Your task to perform on an android device: uninstall "Contacts" Image 0: 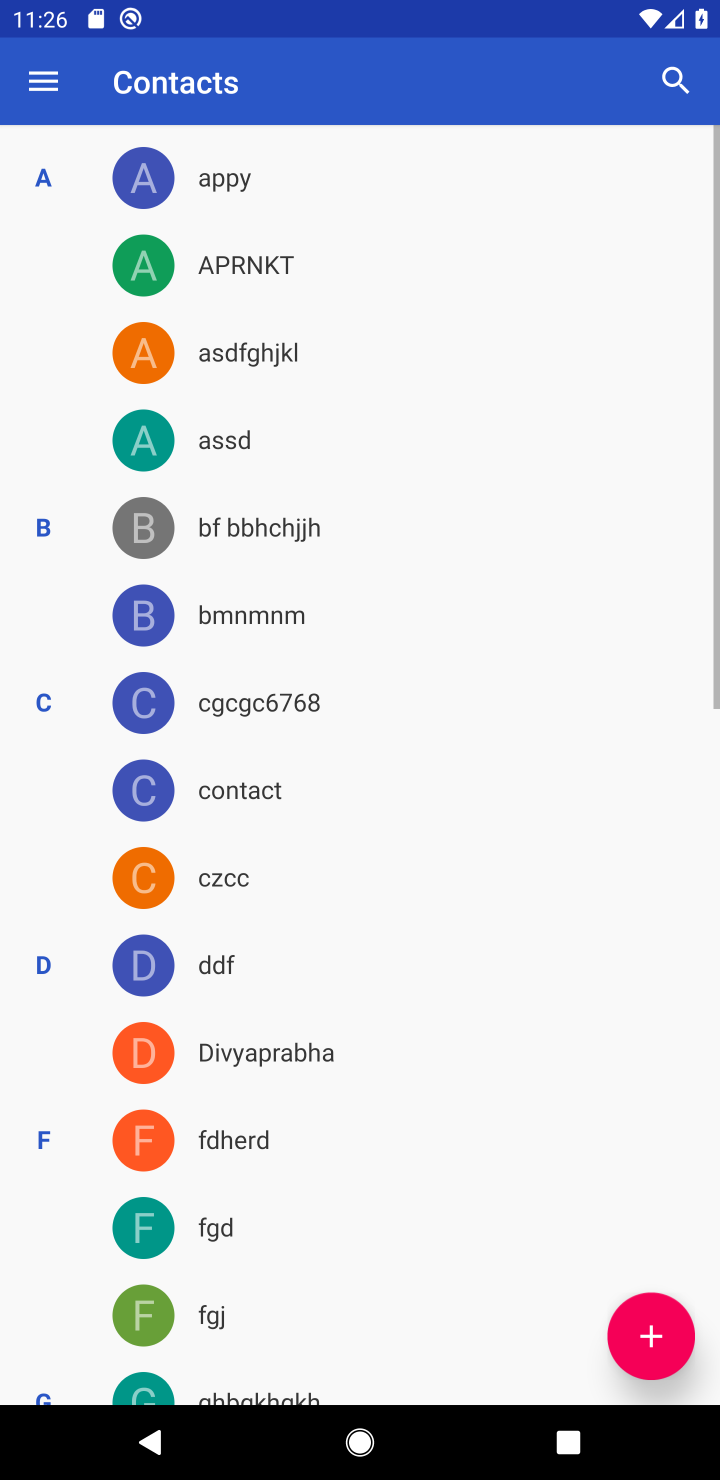
Step 0: press home button
Your task to perform on an android device: uninstall "Contacts" Image 1: 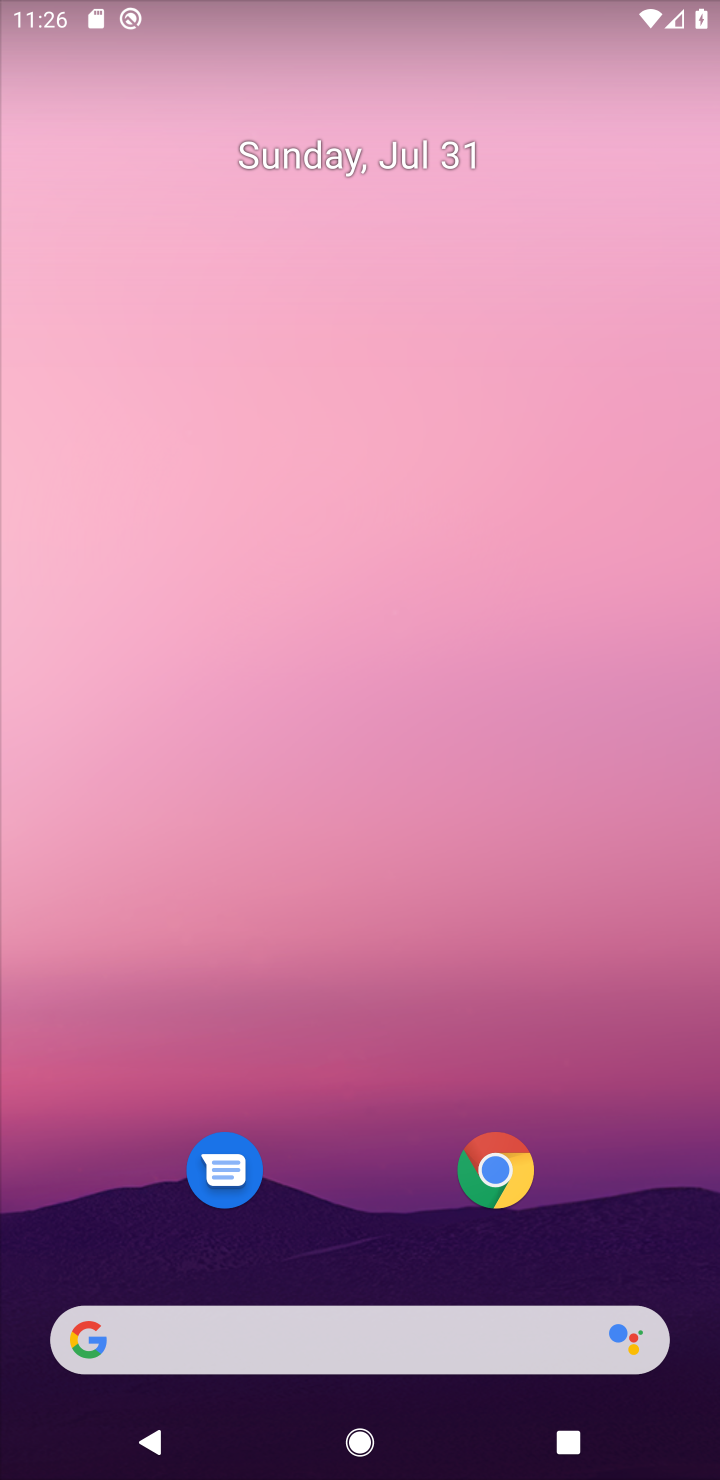
Step 1: drag from (666, 1214) to (393, 84)
Your task to perform on an android device: uninstall "Contacts" Image 2: 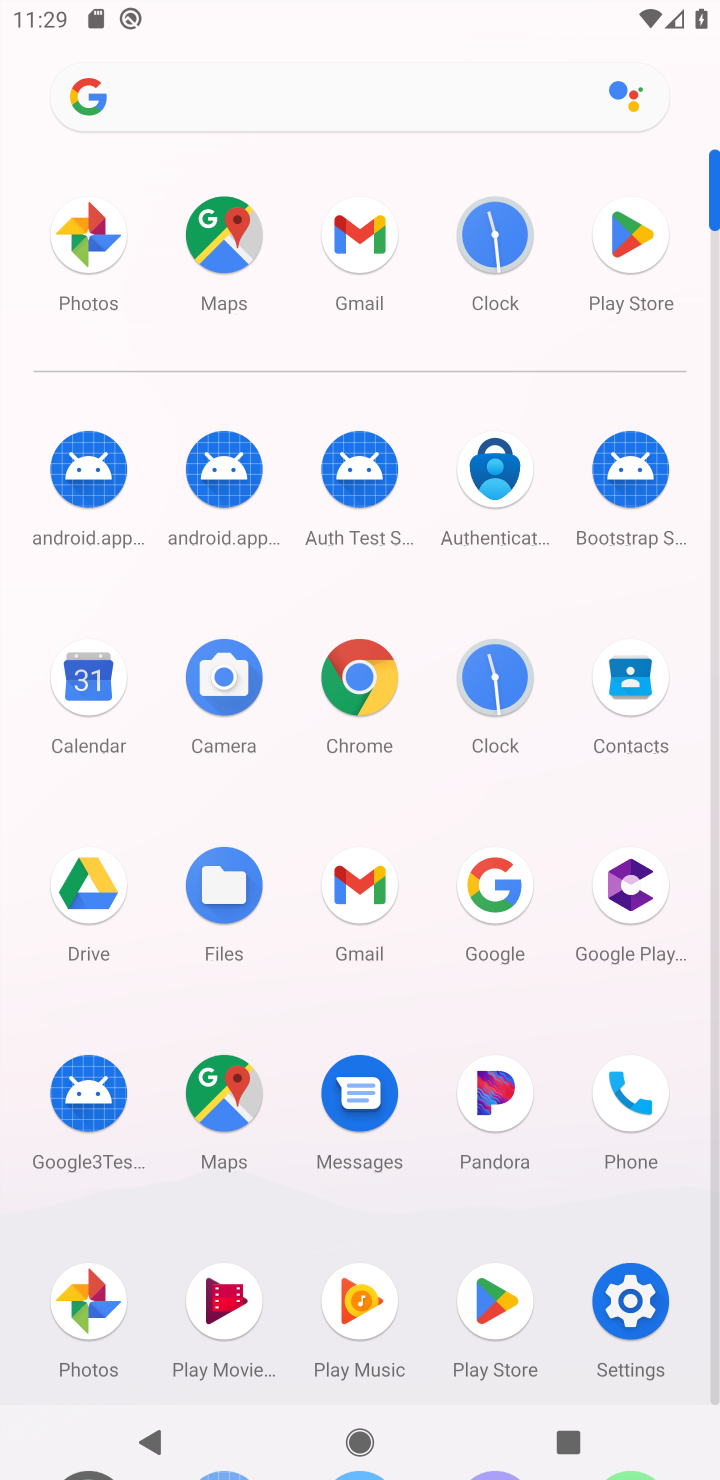
Step 2: click (616, 232)
Your task to perform on an android device: uninstall "Contacts" Image 3: 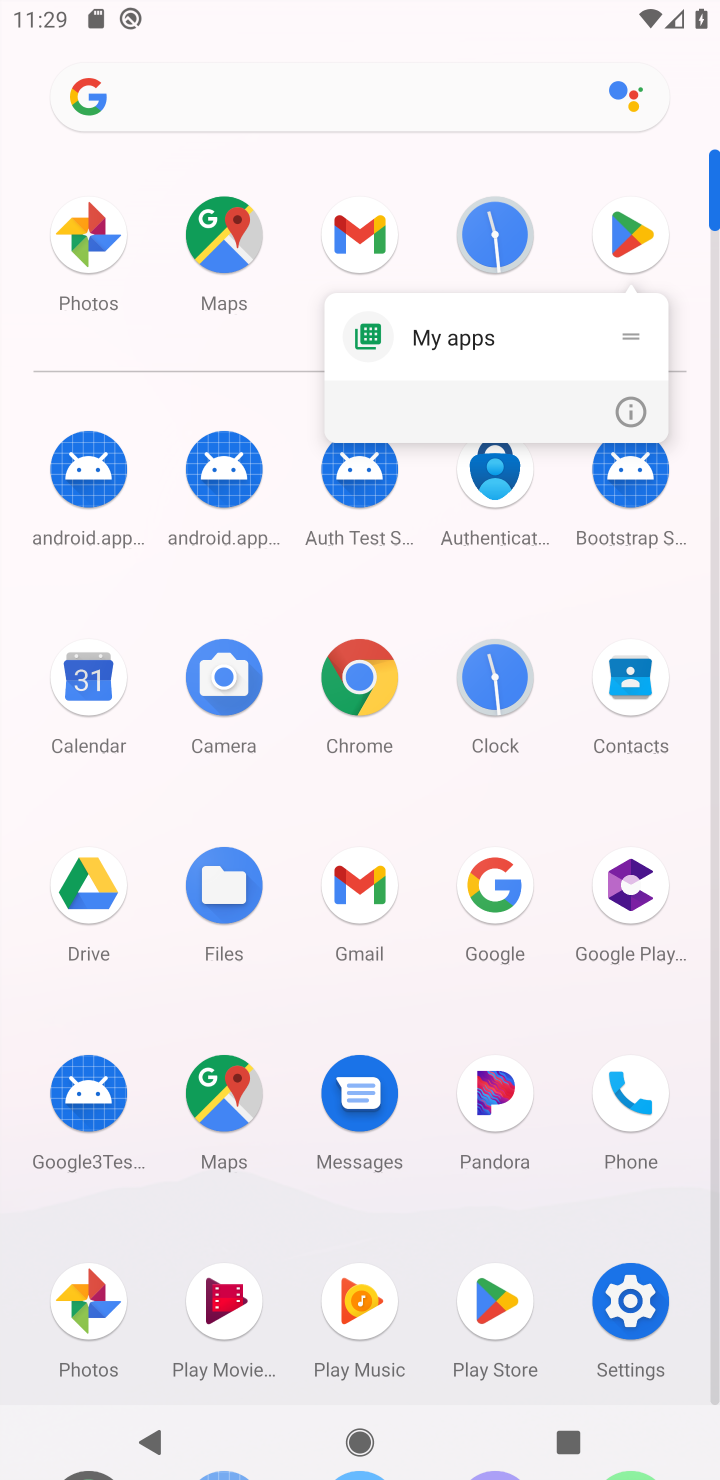
Step 3: click (616, 232)
Your task to perform on an android device: uninstall "Contacts" Image 4: 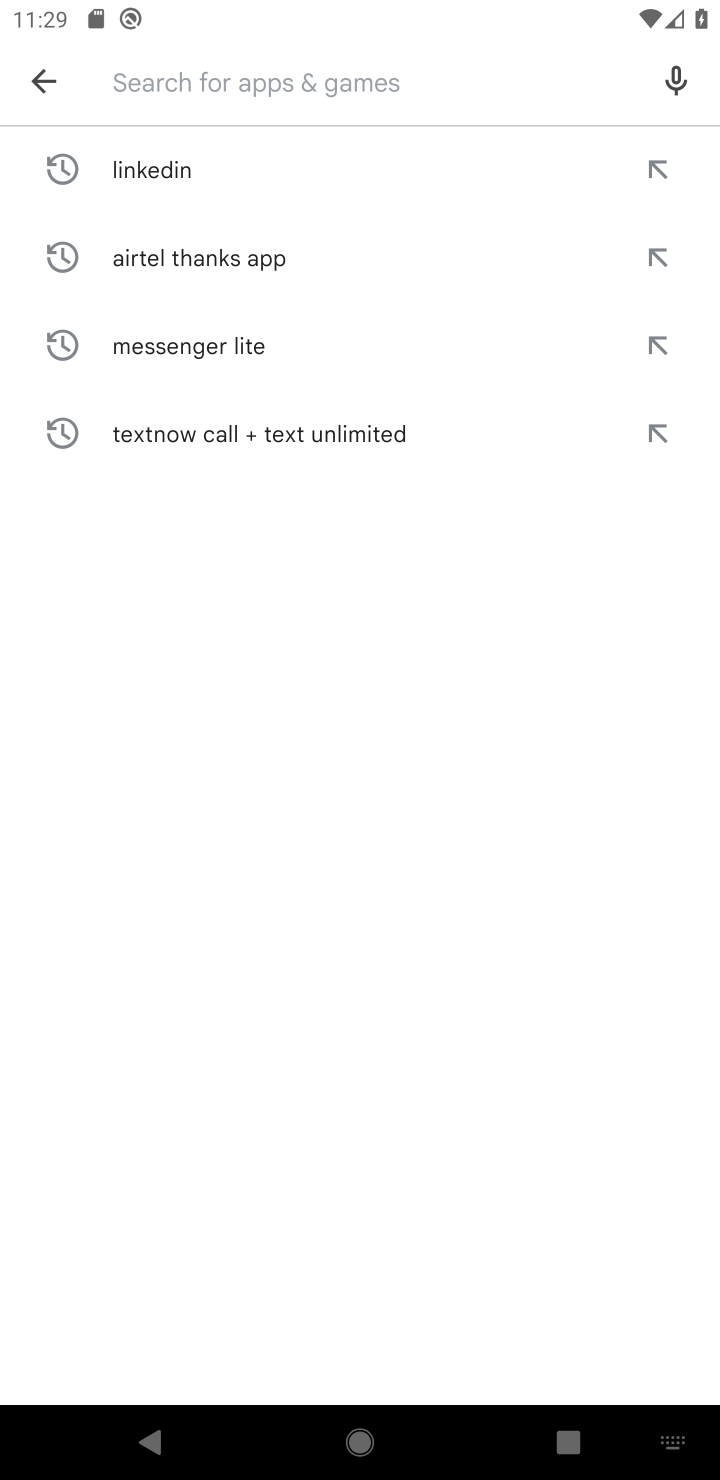
Step 4: type "Contacts"
Your task to perform on an android device: uninstall "Contacts" Image 5: 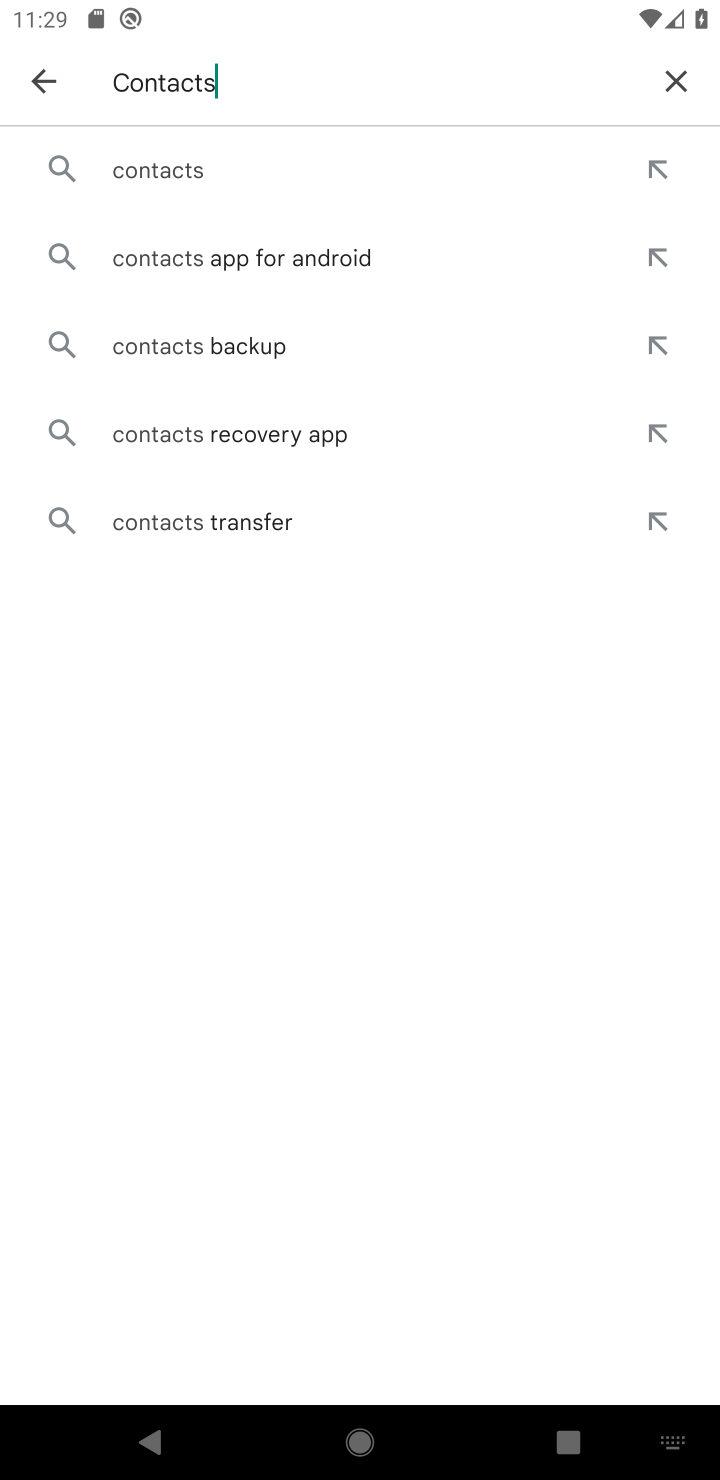
Step 5: click (253, 171)
Your task to perform on an android device: uninstall "Contacts" Image 6: 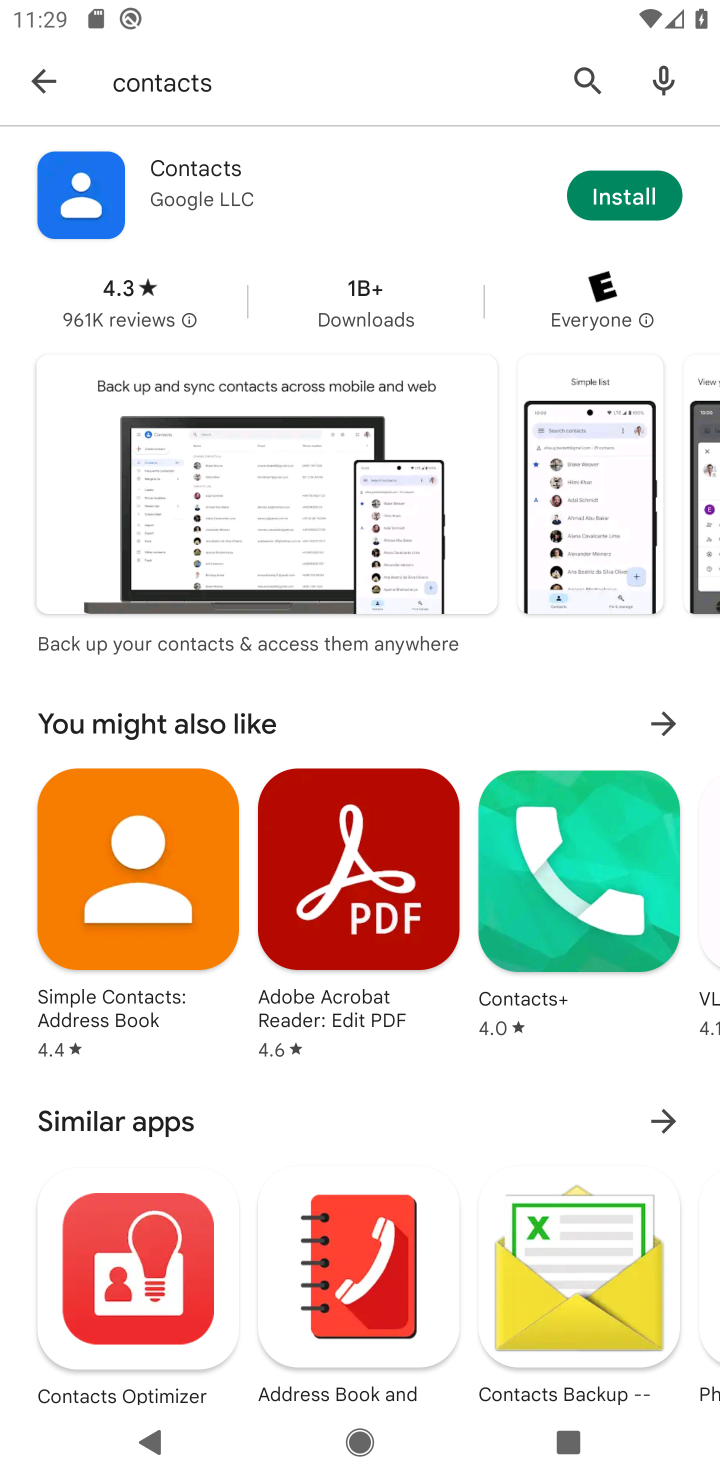
Step 6: task complete